Your task to perform on an android device: choose inbox layout in the gmail app Image 0: 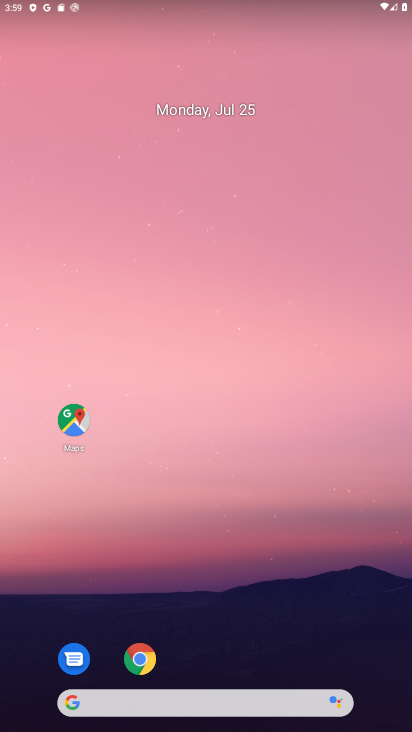
Step 0: drag from (394, 642) to (363, 181)
Your task to perform on an android device: choose inbox layout in the gmail app Image 1: 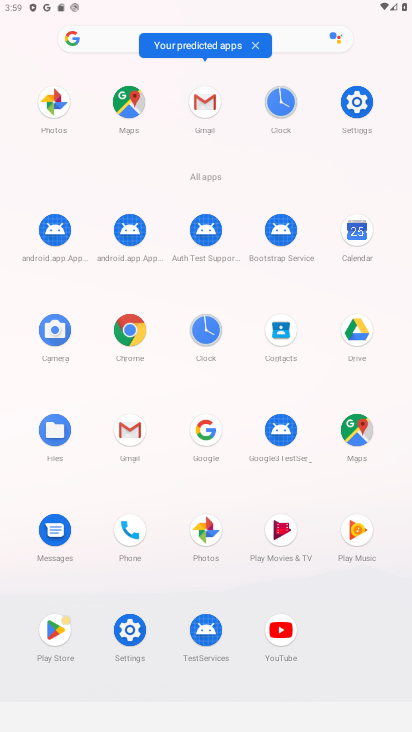
Step 1: click (131, 428)
Your task to perform on an android device: choose inbox layout in the gmail app Image 2: 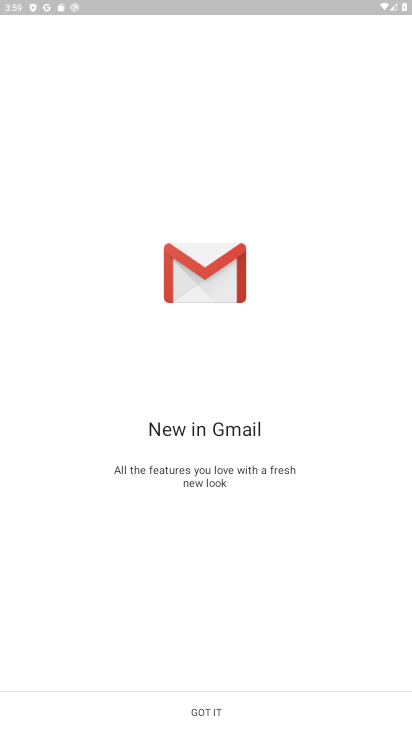
Step 2: click (207, 710)
Your task to perform on an android device: choose inbox layout in the gmail app Image 3: 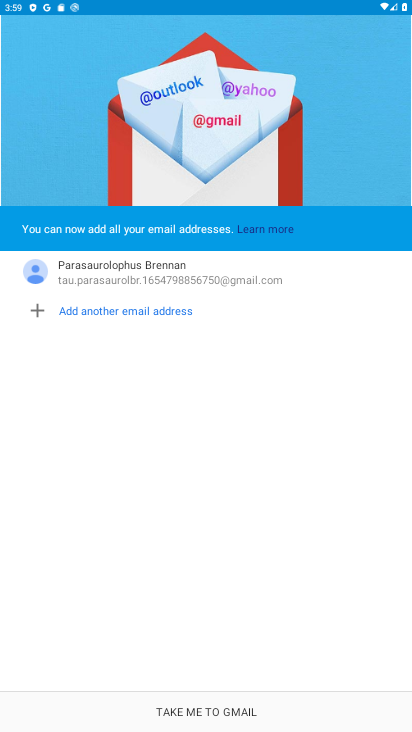
Step 3: click (207, 710)
Your task to perform on an android device: choose inbox layout in the gmail app Image 4: 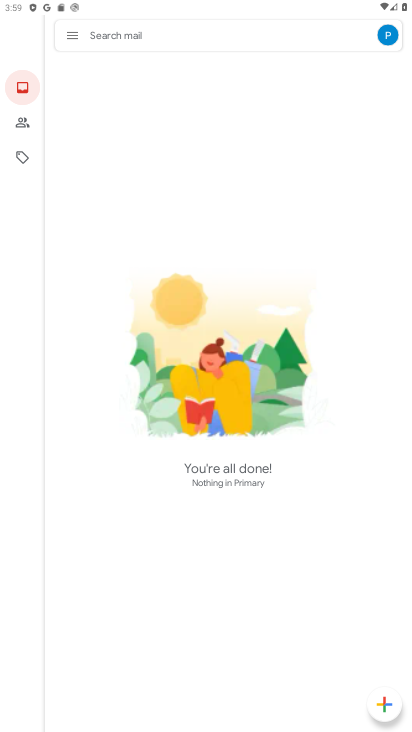
Step 4: click (75, 37)
Your task to perform on an android device: choose inbox layout in the gmail app Image 5: 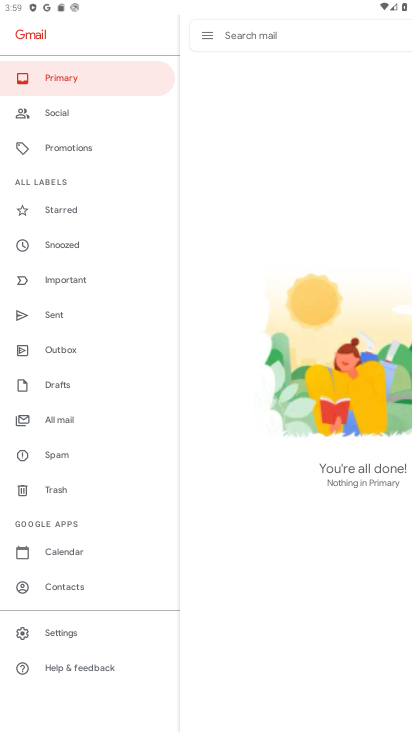
Step 5: click (62, 628)
Your task to perform on an android device: choose inbox layout in the gmail app Image 6: 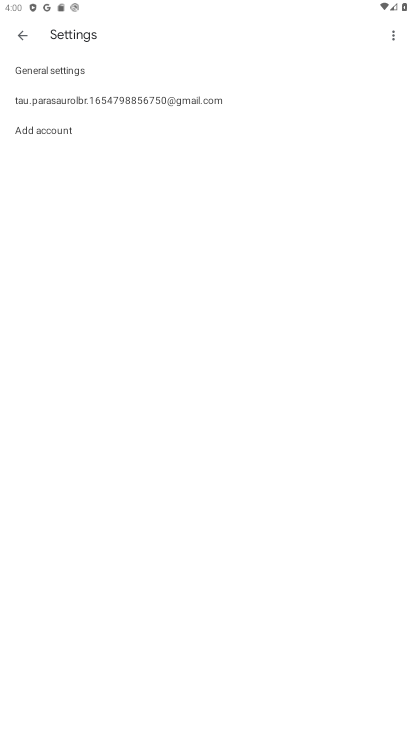
Step 6: click (107, 94)
Your task to perform on an android device: choose inbox layout in the gmail app Image 7: 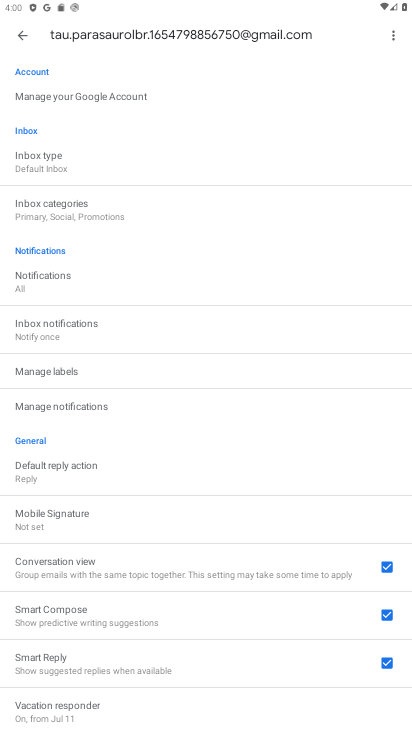
Step 7: click (30, 157)
Your task to perform on an android device: choose inbox layout in the gmail app Image 8: 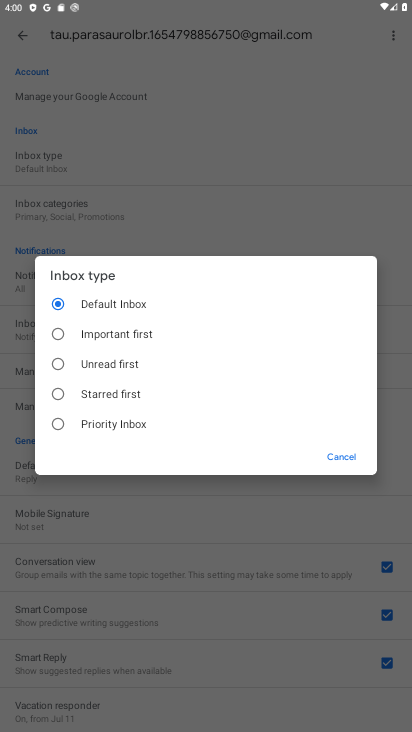
Step 8: click (57, 427)
Your task to perform on an android device: choose inbox layout in the gmail app Image 9: 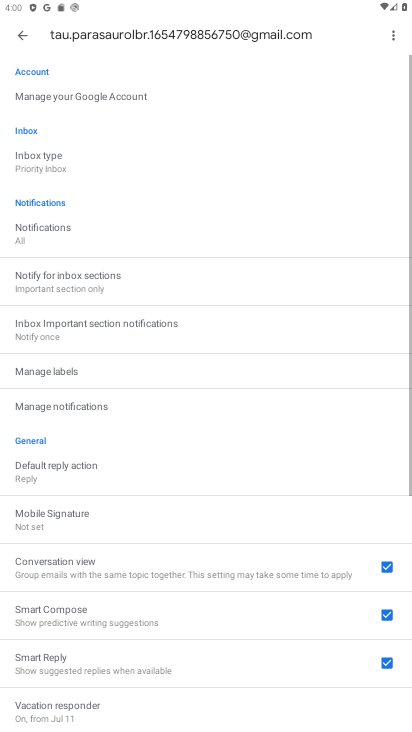
Step 9: task complete